Your task to perform on an android device: Go to ESPN.com Image 0: 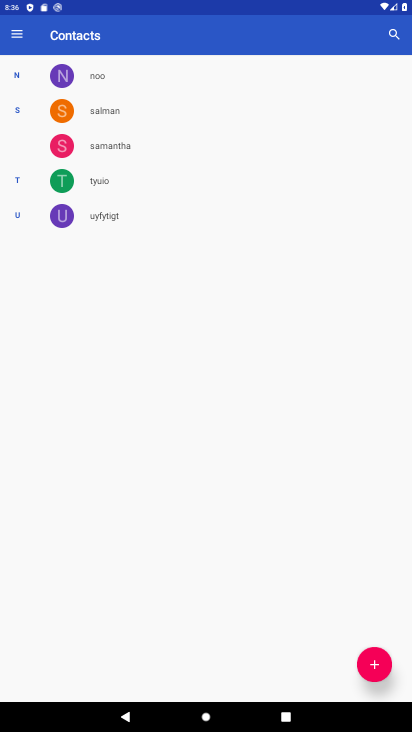
Step 0: press home button
Your task to perform on an android device: Go to ESPN.com Image 1: 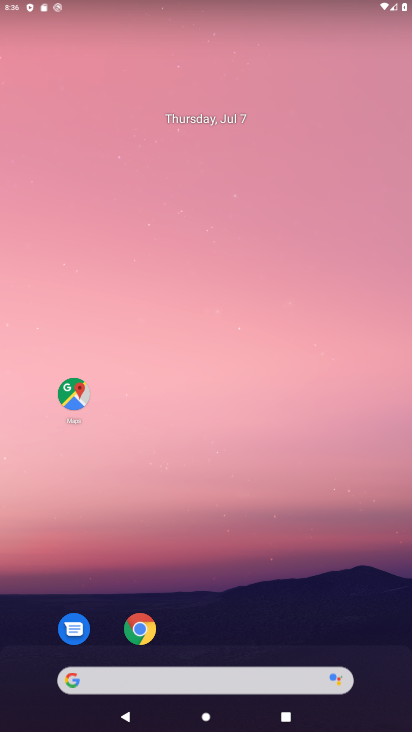
Step 1: drag from (231, 640) to (267, 153)
Your task to perform on an android device: Go to ESPN.com Image 2: 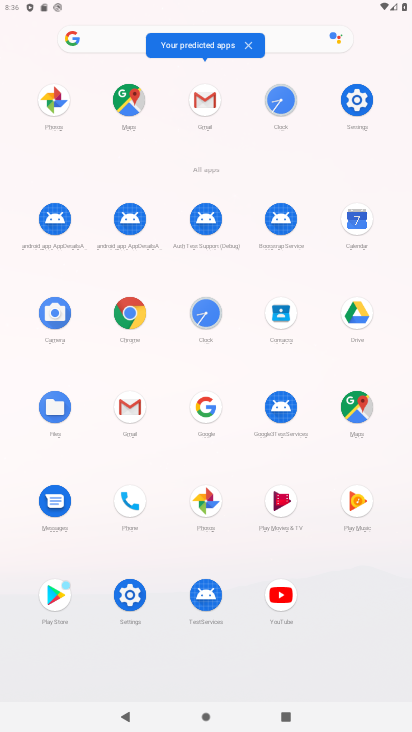
Step 2: click (202, 398)
Your task to perform on an android device: Go to ESPN.com Image 3: 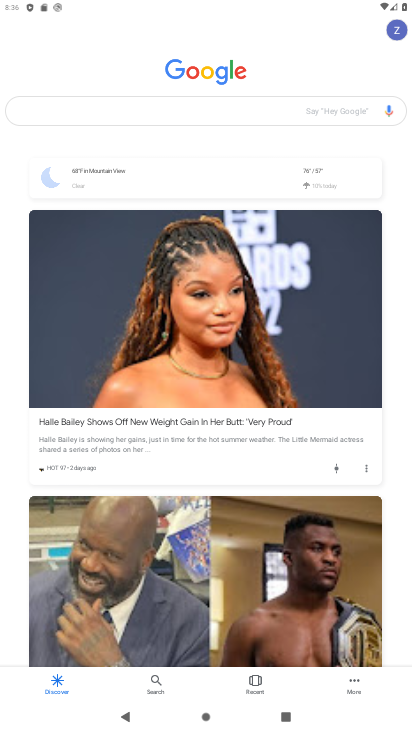
Step 3: click (174, 110)
Your task to perform on an android device: Go to ESPN.com Image 4: 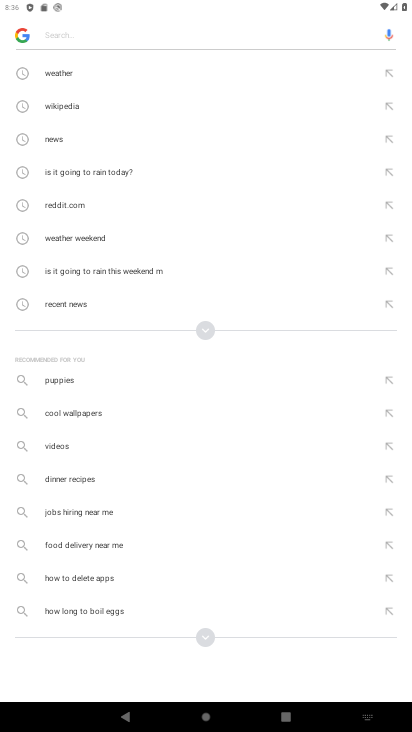
Step 4: type "espn.com"
Your task to perform on an android device: Go to ESPN.com Image 5: 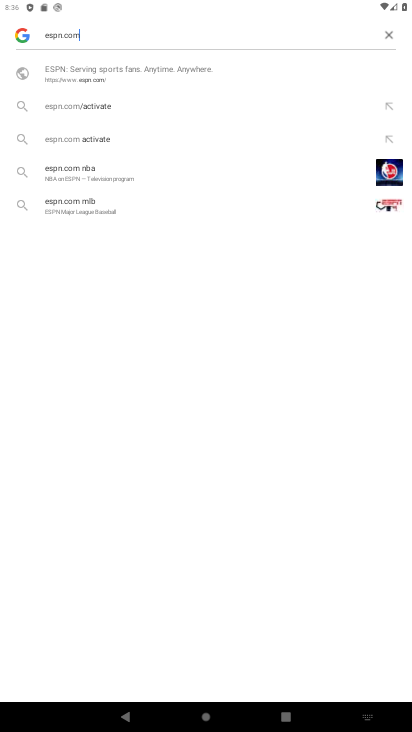
Step 5: click (165, 92)
Your task to perform on an android device: Go to ESPN.com Image 6: 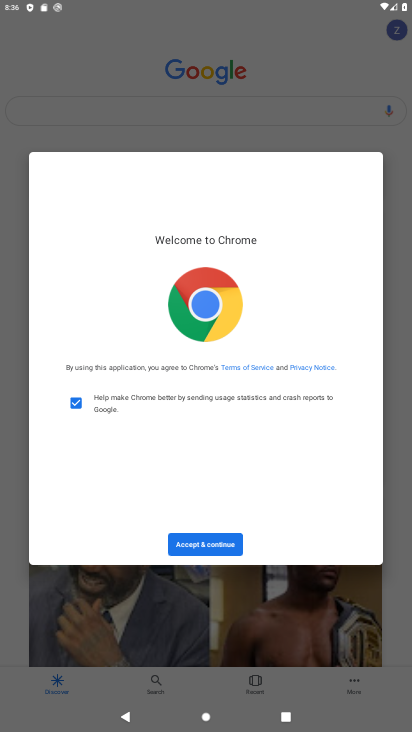
Step 6: click (212, 543)
Your task to perform on an android device: Go to ESPN.com Image 7: 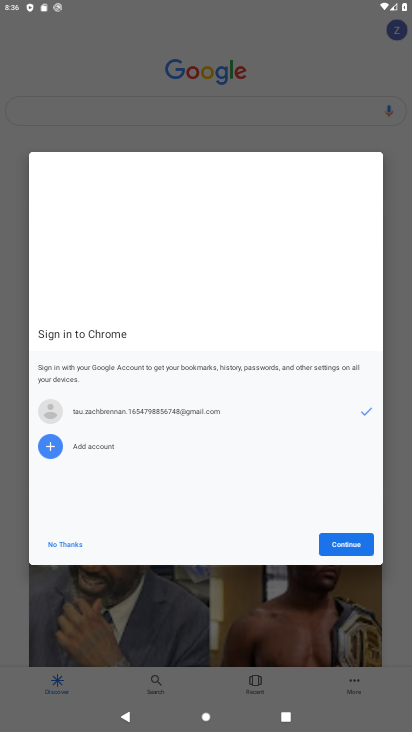
Step 7: drag from (212, 543) to (266, 469)
Your task to perform on an android device: Go to ESPN.com Image 8: 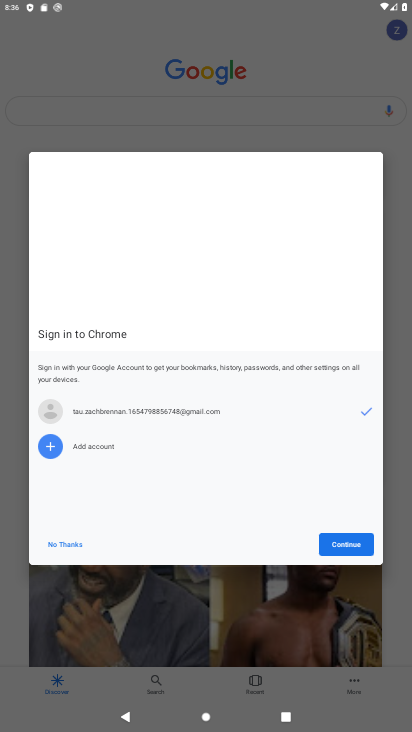
Step 8: click (331, 538)
Your task to perform on an android device: Go to ESPN.com Image 9: 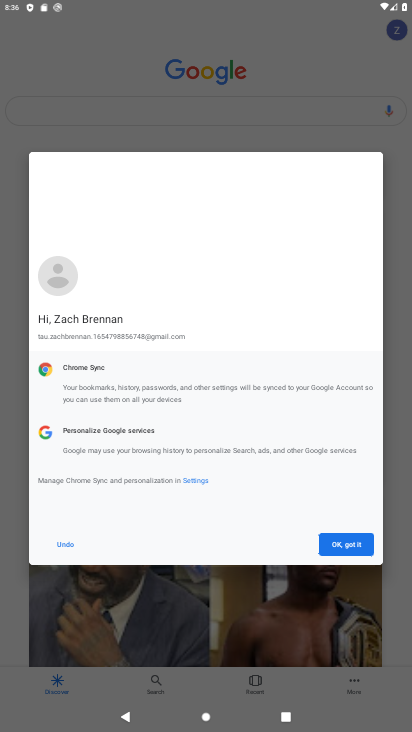
Step 9: click (331, 538)
Your task to perform on an android device: Go to ESPN.com Image 10: 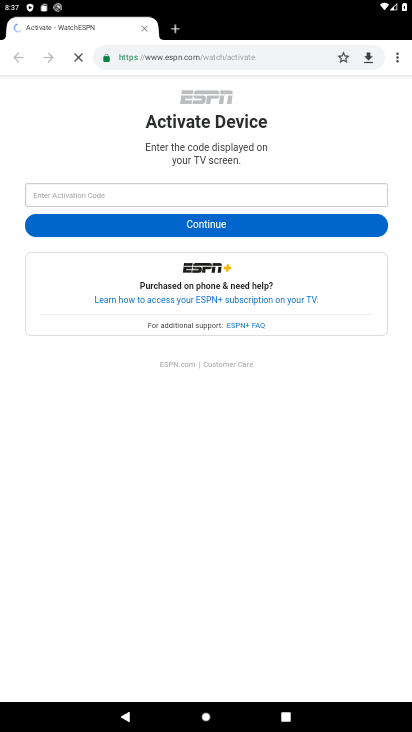
Step 10: task complete